Your task to perform on an android device: turn off airplane mode Image 0: 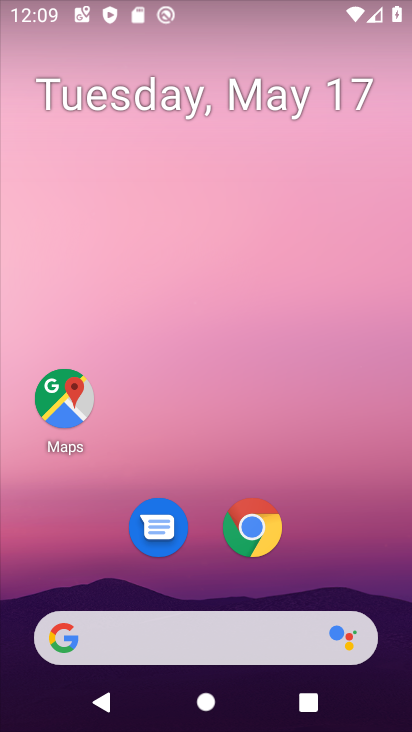
Step 0: drag from (343, 551) to (305, 198)
Your task to perform on an android device: turn off airplane mode Image 1: 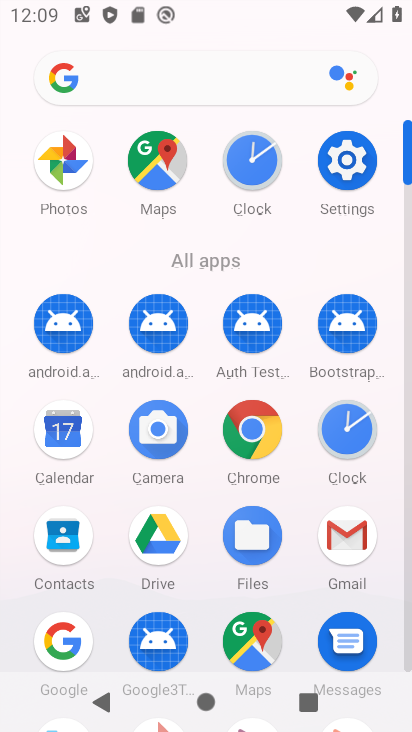
Step 1: click (356, 150)
Your task to perform on an android device: turn off airplane mode Image 2: 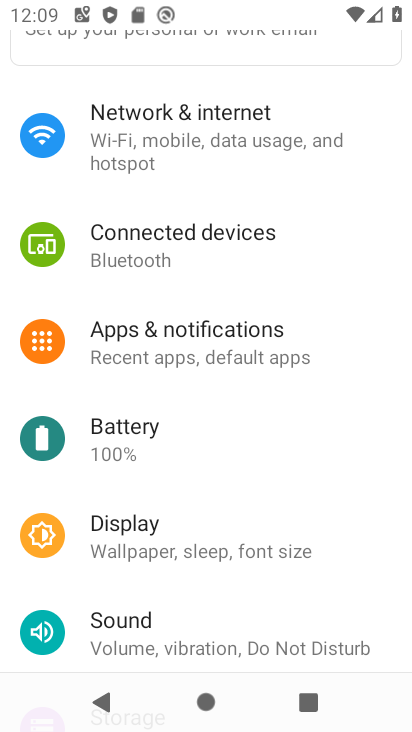
Step 2: click (353, 148)
Your task to perform on an android device: turn off airplane mode Image 3: 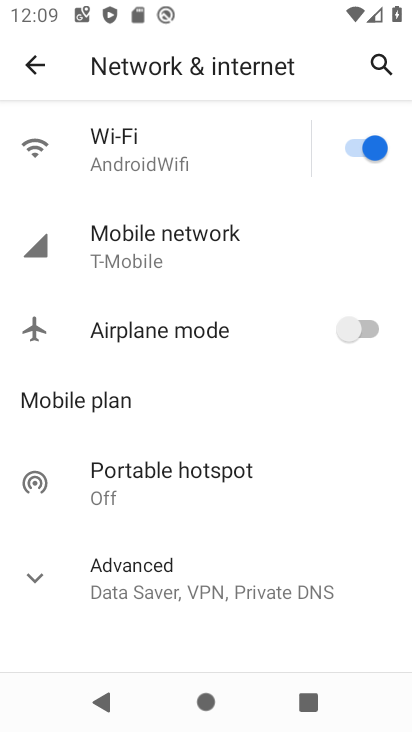
Step 3: task complete